Your task to perform on an android device: Open battery settings Image 0: 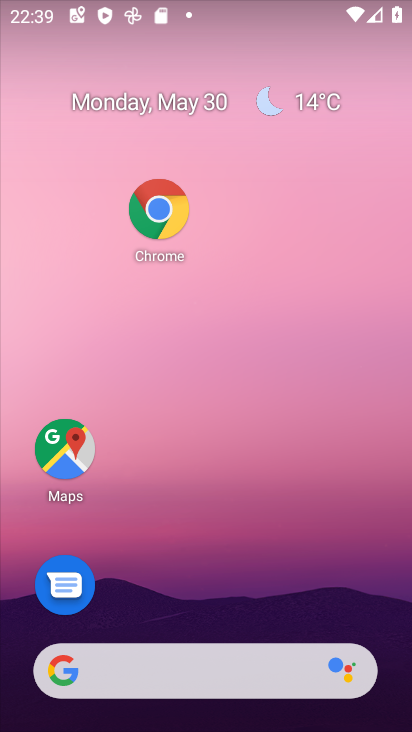
Step 0: drag from (183, 565) to (258, 122)
Your task to perform on an android device: Open battery settings Image 1: 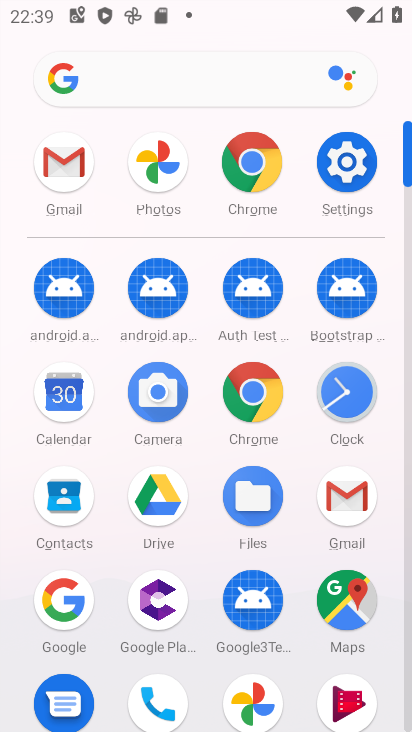
Step 1: click (355, 164)
Your task to perform on an android device: Open battery settings Image 2: 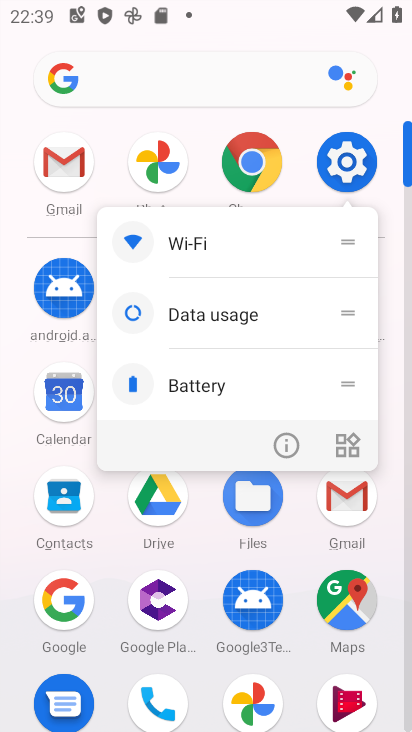
Step 2: click (289, 438)
Your task to perform on an android device: Open battery settings Image 3: 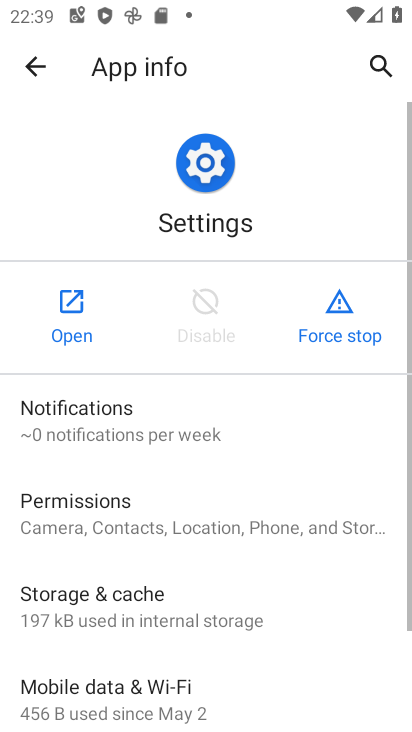
Step 3: click (66, 308)
Your task to perform on an android device: Open battery settings Image 4: 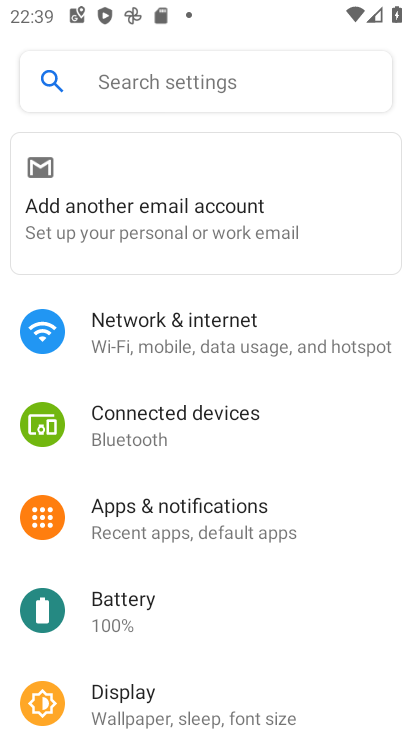
Step 4: drag from (194, 537) to (259, 95)
Your task to perform on an android device: Open battery settings Image 5: 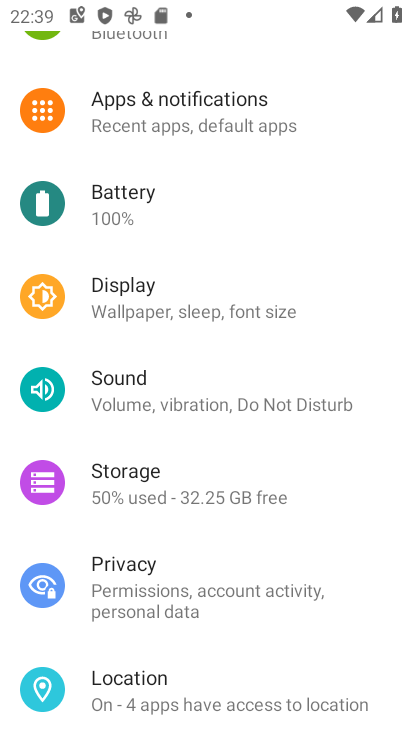
Step 5: click (138, 219)
Your task to perform on an android device: Open battery settings Image 6: 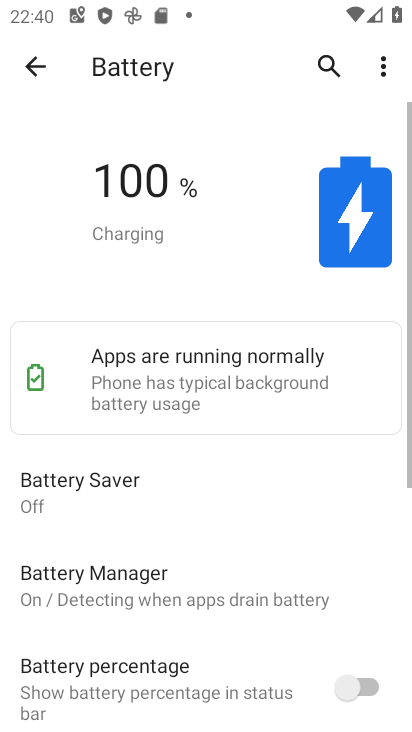
Step 6: task complete